Your task to perform on an android device: empty trash in the gmail app Image 0: 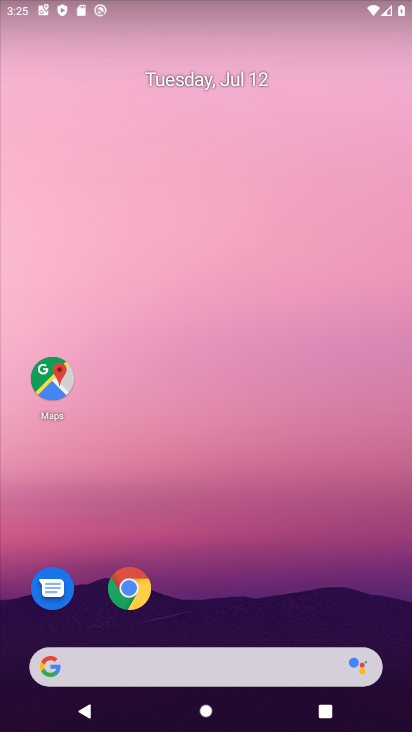
Step 0: drag from (281, 580) to (307, 121)
Your task to perform on an android device: empty trash in the gmail app Image 1: 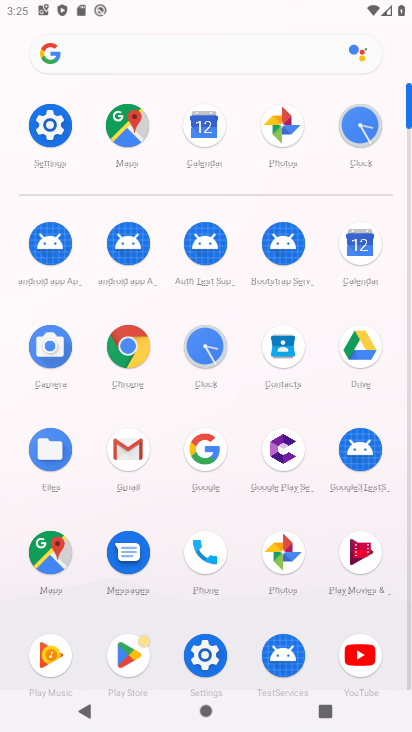
Step 1: click (131, 444)
Your task to perform on an android device: empty trash in the gmail app Image 2: 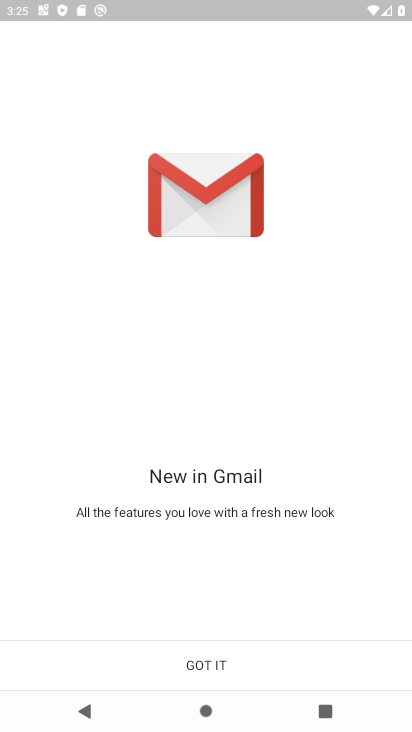
Step 2: click (263, 671)
Your task to perform on an android device: empty trash in the gmail app Image 3: 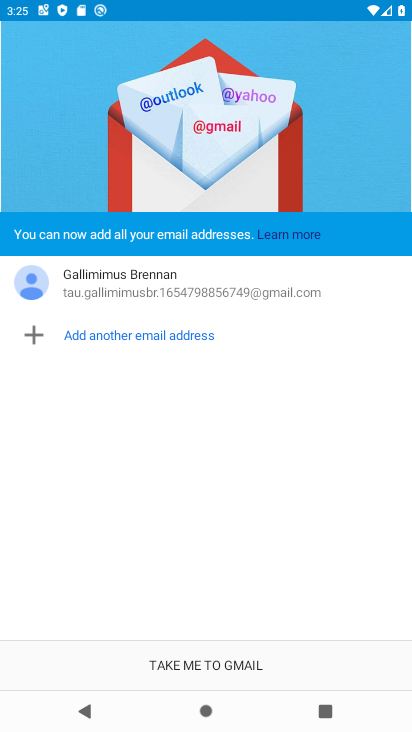
Step 3: click (262, 661)
Your task to perform on an android device: empty trash in the gmail app Image 4: 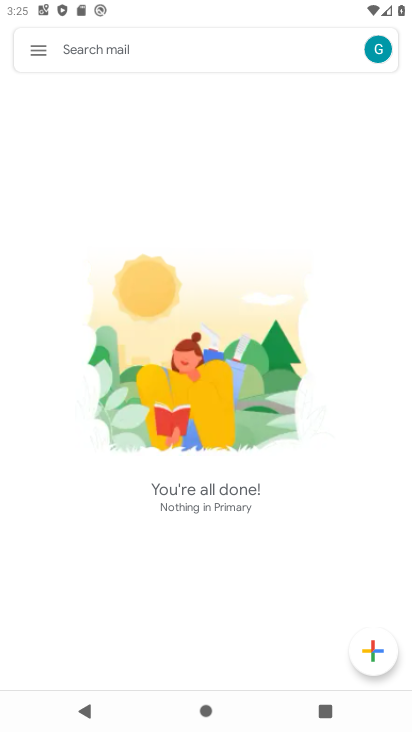
Step 4: click (40, 51)
Your task to perform on an android device: empty trash in the gmail app Image 5: 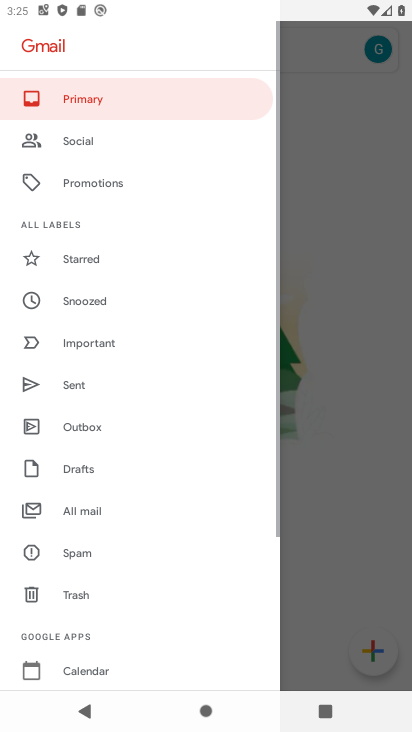
Step 5: click (40, 51)
Your task to perform on an android device: empty trash in the gmail app Image 6: 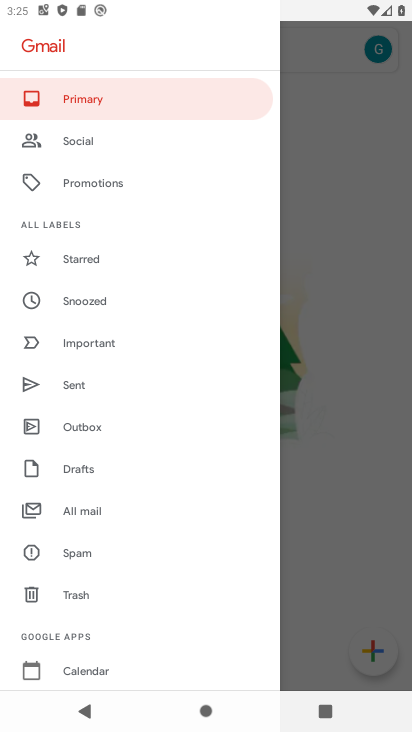
Step 6: click (65, 595)
Your task to perform on an android device: empty trash in the gmail app Image 7: 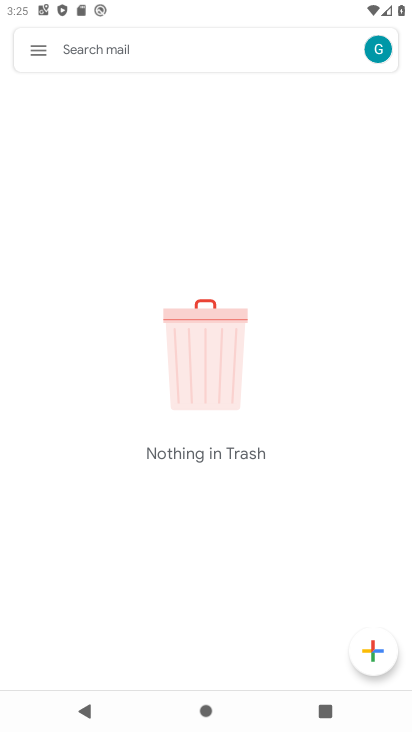
Step 7: task complete